Your task to perform on an android device: search for starred emails in the gmail app Image 0: 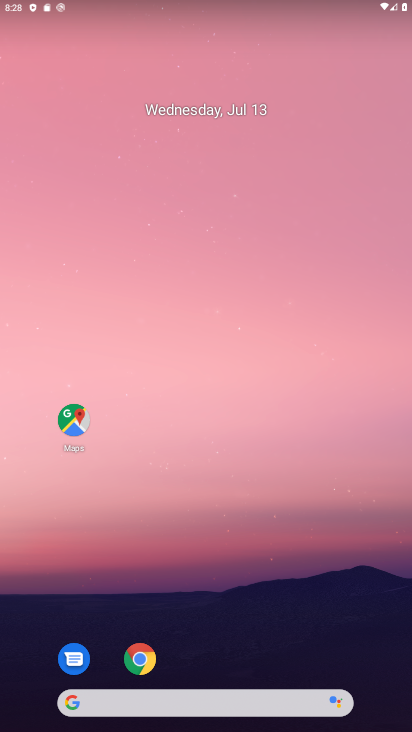
Step 0: press home button
Your task to perform on an android device: search for starred emails in the gmail app Image 1: 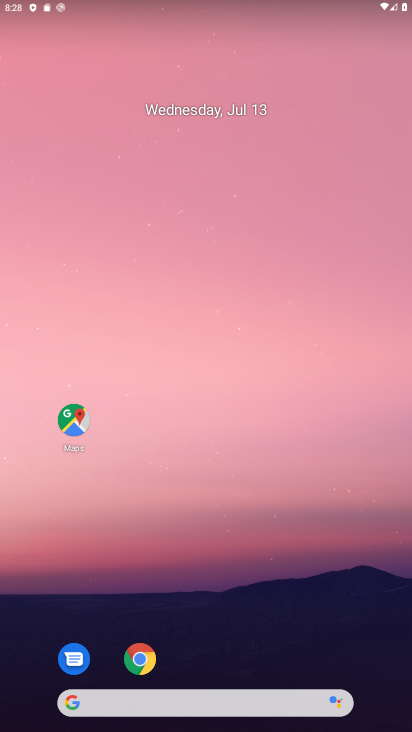
Step 1: drag from (55, 493) to (180, 174)
Your task to perform on an android device: search for starred emails in the gmail app Image 2: 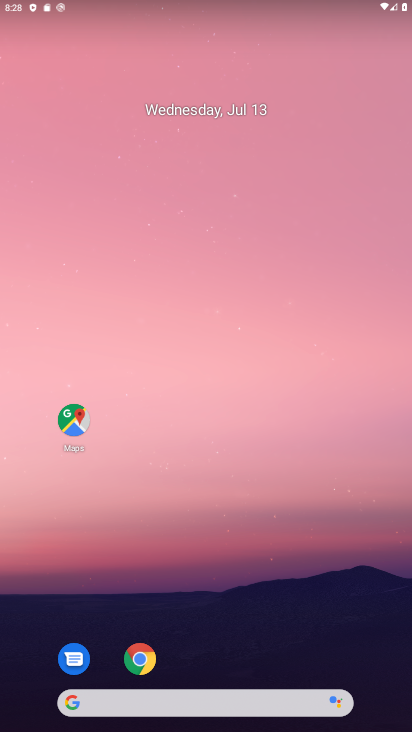
Step 2: drag from (12, 649) to (231, 68)
Your task to perform on an android device: search for starred emails in the gmail app Image 3: 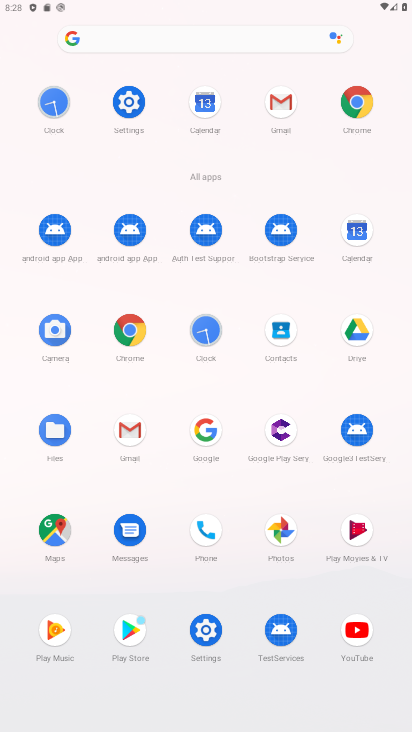
Step 3: click (294, 94)
Your task to perform on an android device: search for starred emails in the gmail app Image 4: 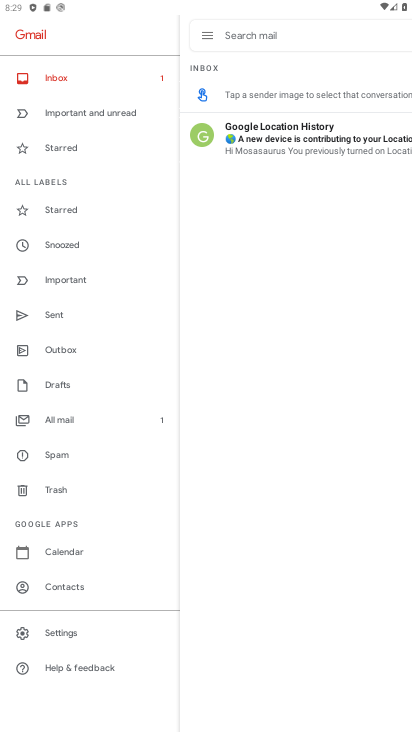
Step 4: click (75, 212)
Your task to perform on an android device: search for starred emails in the gmail app Image 5: 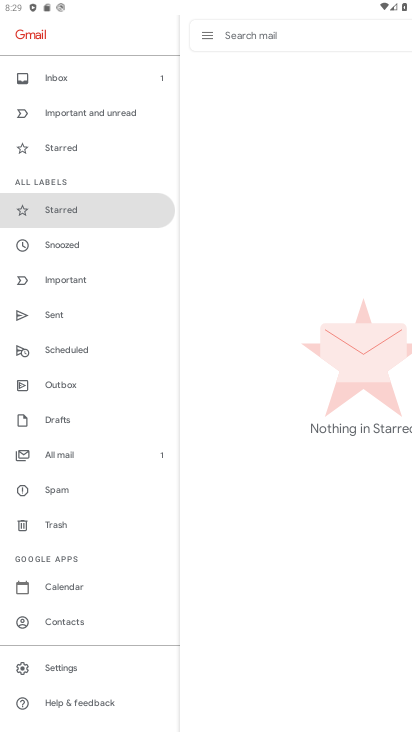
Step 5: task complete